Your task to perform on an android device: find which apps use the phone's location Image 0: 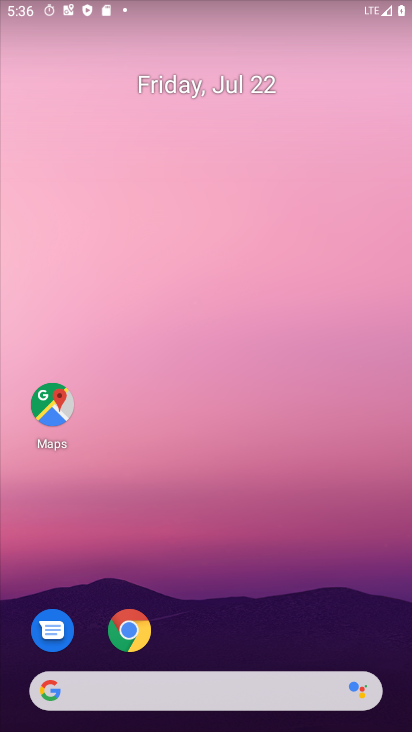
Step 0: press home button
Your task to perform on an android device: find which apps use the phone's location Image 1: 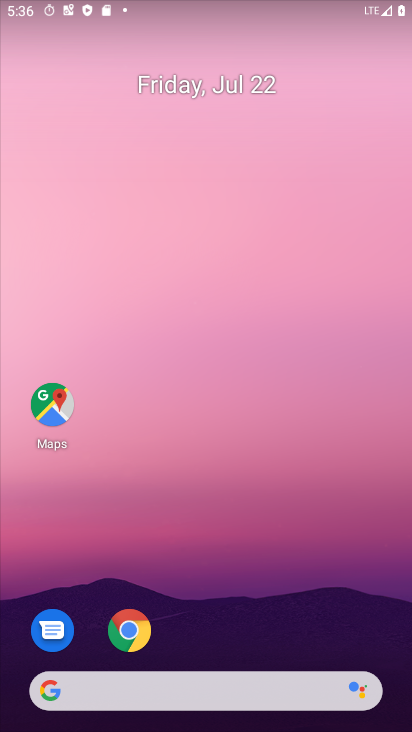
Step 1: drag from (252, 620) to (192, 2)
Your task to perform on an android device: find which apps use the phone's location Image 2: 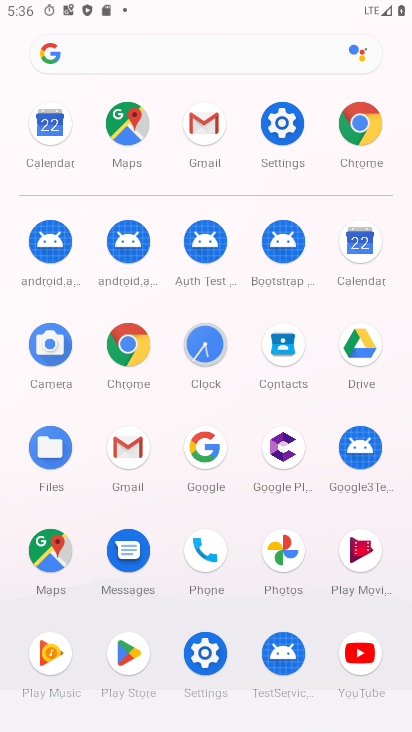
Step 2: click (276, 107)
Your task to perform on an android device: find which apps use the phone's location Image 3: 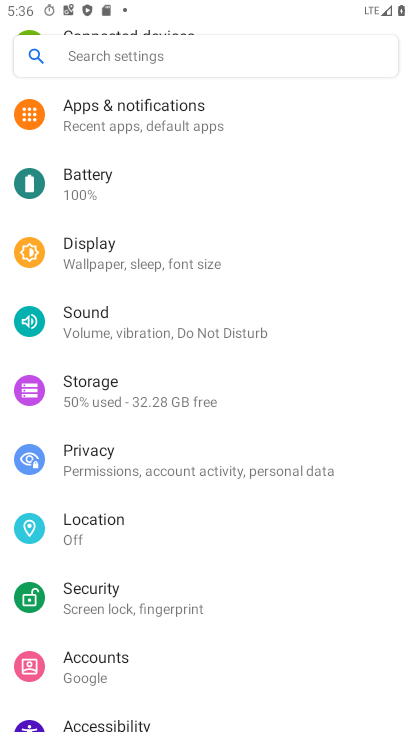
Step 3: click (116, 512)
Your task to perform on an android device: find which apps use the phone's location Image 4: 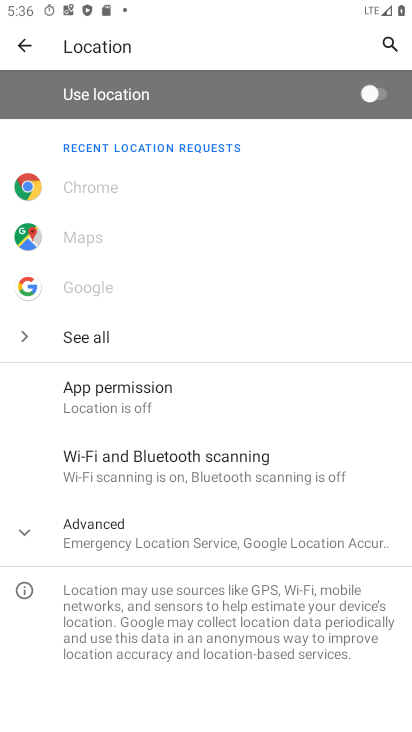
Step 4: click (127, 399)
Your task to perform on an android device: find which apps use the phone's location Image 5: 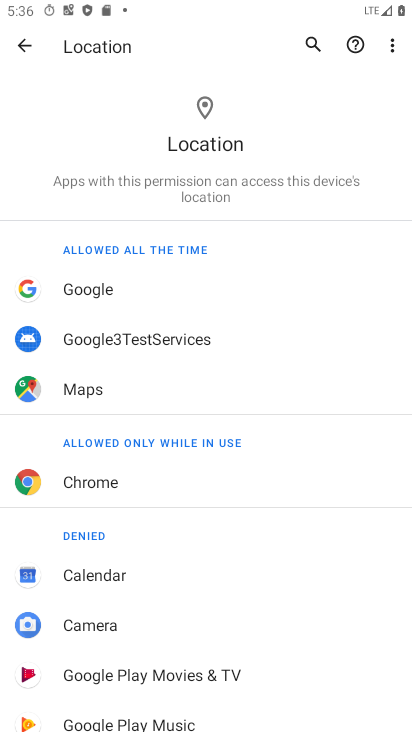
Step 5: task complete